Your task to perform on an android device: Is it going to rain this weekend? Image 0: 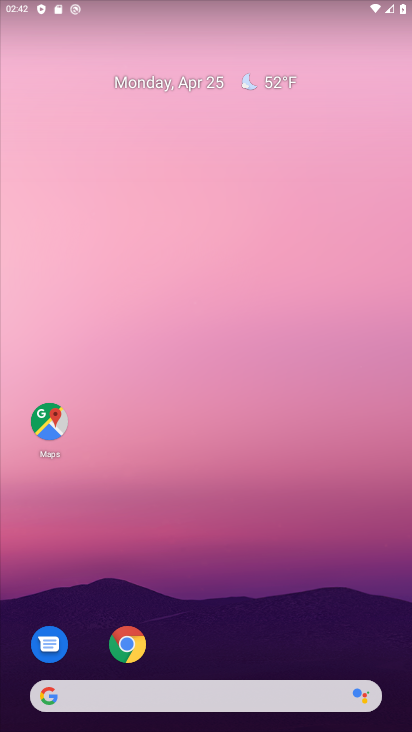
Step 0: drag from (240, 635) to (228, 71)
Your task to perform on an android device: Is it going to rain this weekend? Image 1: 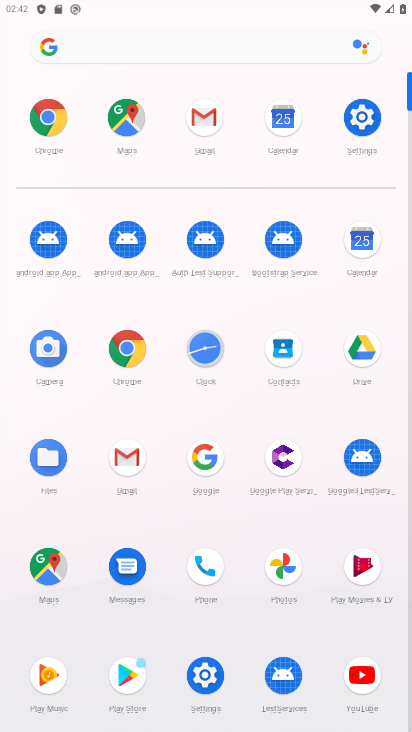
Step 1: click (201, 57)
Your task to perform on an android device: Is it going to rain this weekend? Image 2: 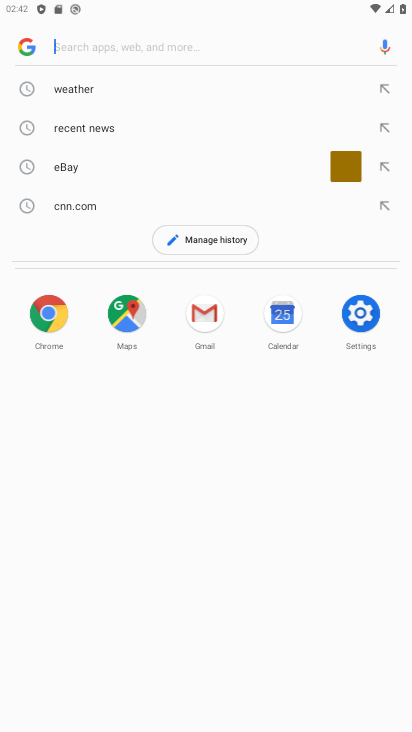
Step 2: click (199, 52)
Your task to perform on an android device: Is it going to rain this weekend? Image 3: 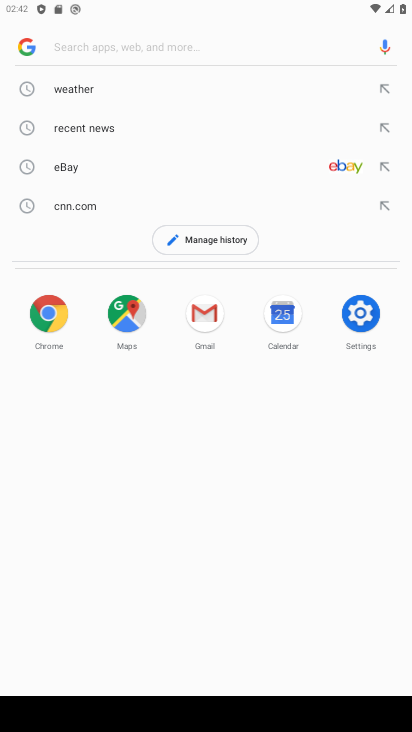
Step 3: click (175, 85)
Your task to perform on an android device: Is it going to rain this weekend? Image 4: 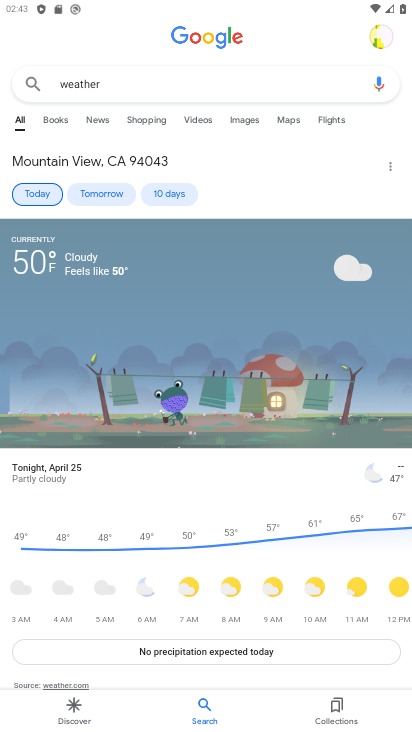
Step 4: task complete